Your task to perform on an android device: Go to wifi settings Image 0: 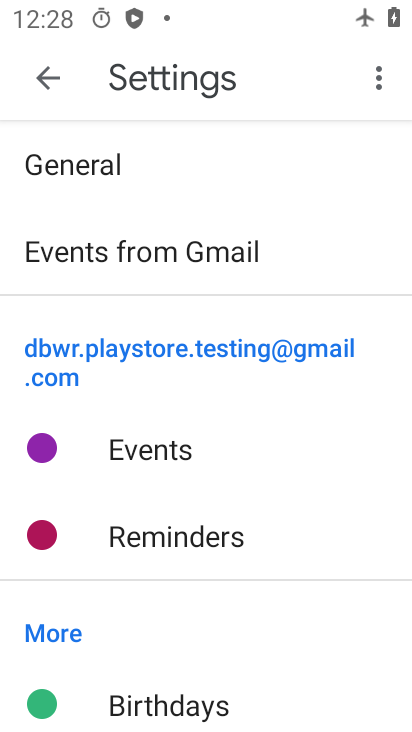
Step 0: press home button
Your task to perform on an android device: Go to wifi settings Image 1: 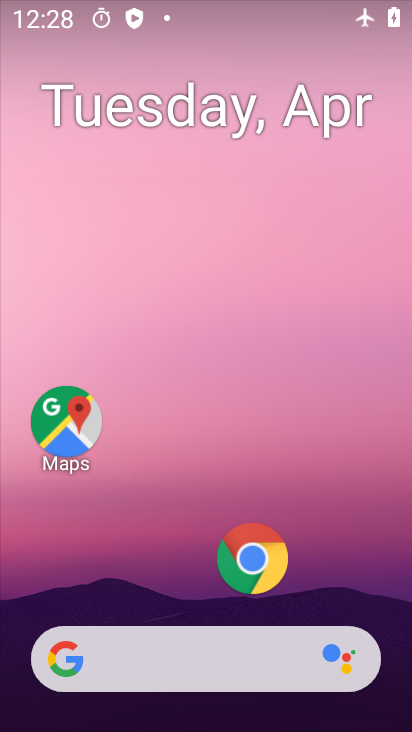
Step 1: drag from (152, 597) to (167, 176)
Your task to perform on an android device: Go to wifi settings Image 2: 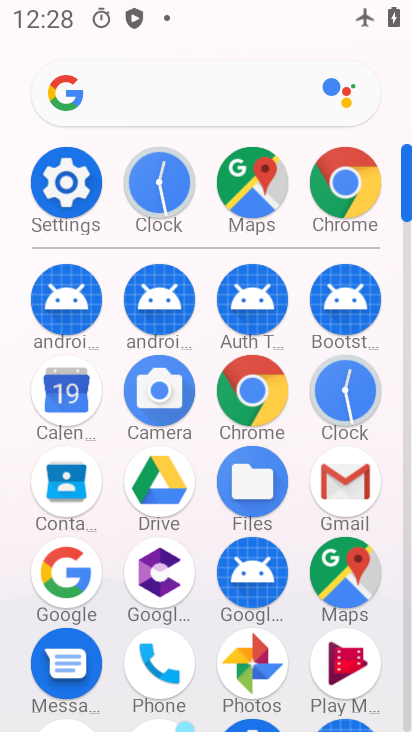
Step 2: drag from (212, 599) to (215, 330)
Your task to perform on an android device: Go to wifi settings Image 3: 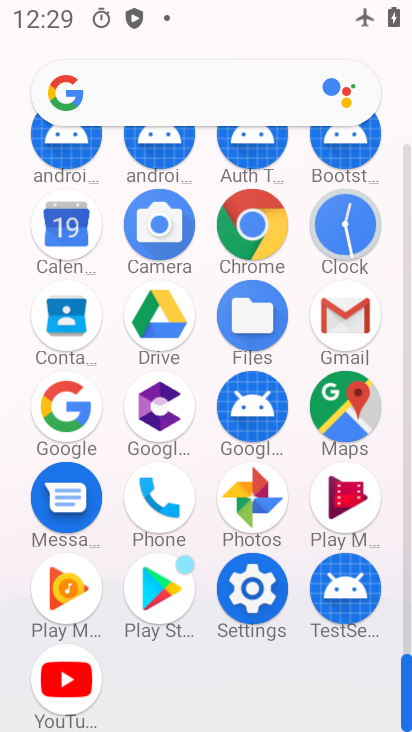
Step 3: click (266, 701)
Your task to perform on an android device: Go to wifi settings Image 4: 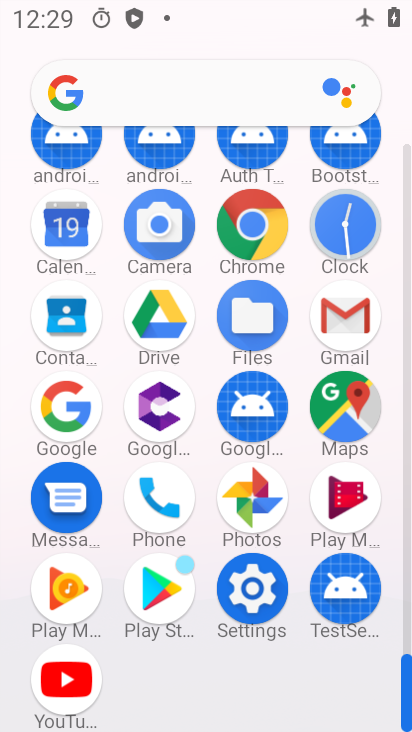
Step 4: click (251, 592)
Your task to perform on an android device: Go to wifi settings Image 5: 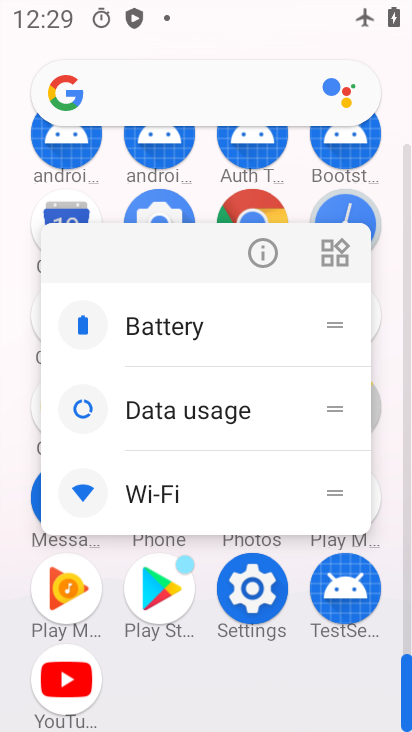
Step 5: click (261, 261)
Your task to perform on an android device: Go to wifi settings Image 6: 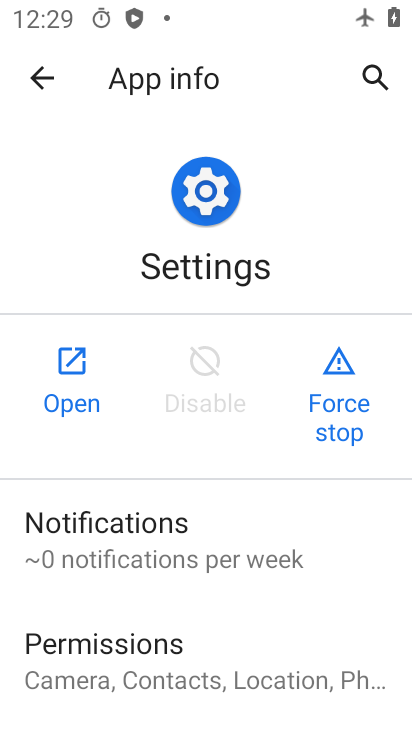
Step 6: click (78, 375)
Your task to perform on an android device: Go to wifi settings Image 7: 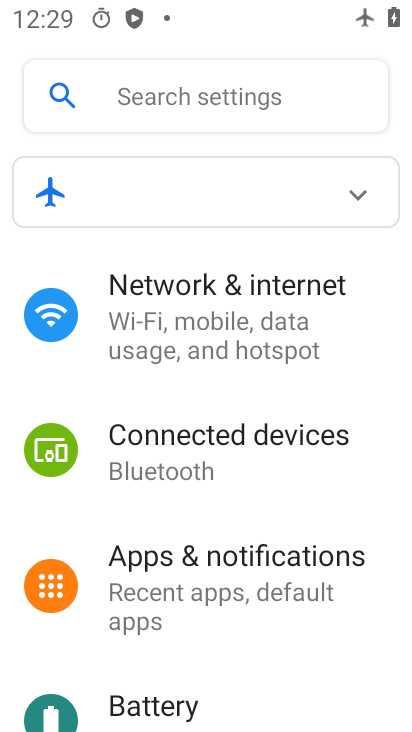
Step 7: click (239, 341)
Your task to perform on an android device: Go to wifi settings Image 8: 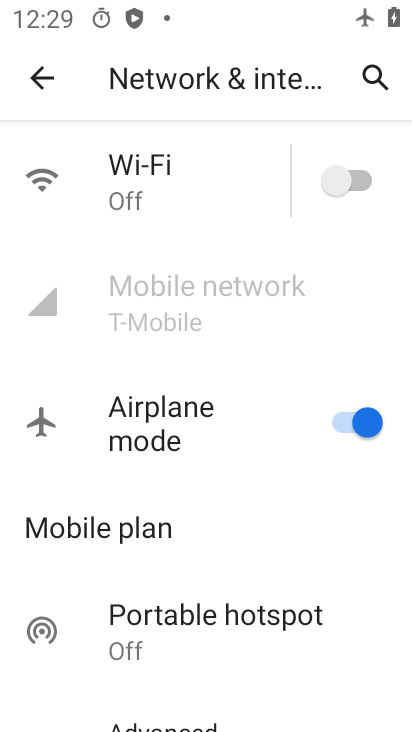
Step 8: click (120, 184)
Your task to perform on an android device: Go to wifi settings Image 9: 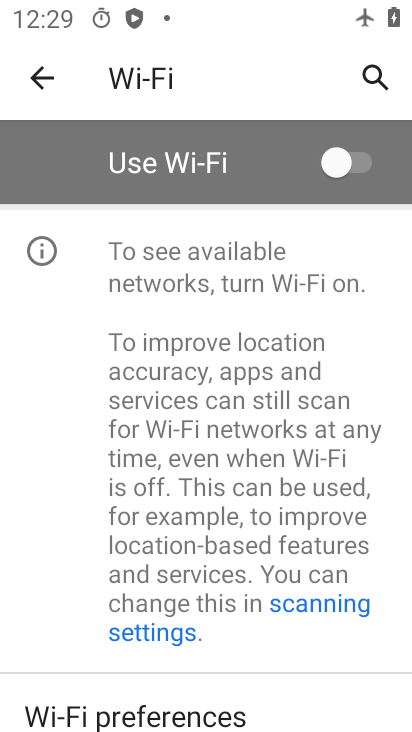
Step 9: task complete